Your task to perform on an android device: see tabs open on other devices in the chrome app Image 0: 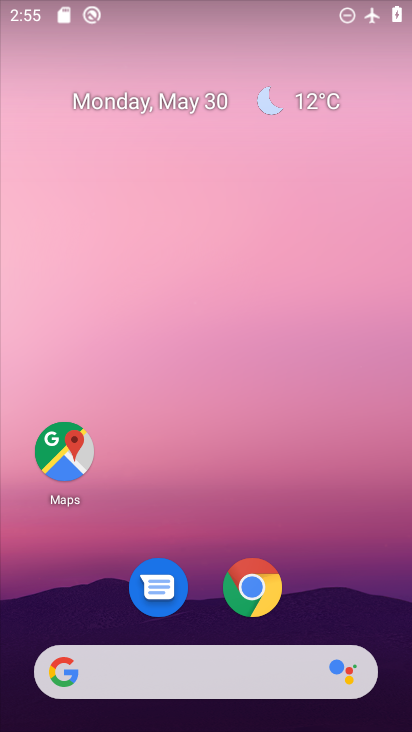
Step 0: click (258, 585)
Your task to perform on an android device: see tabs open on other devices in the chrome app Image 1: 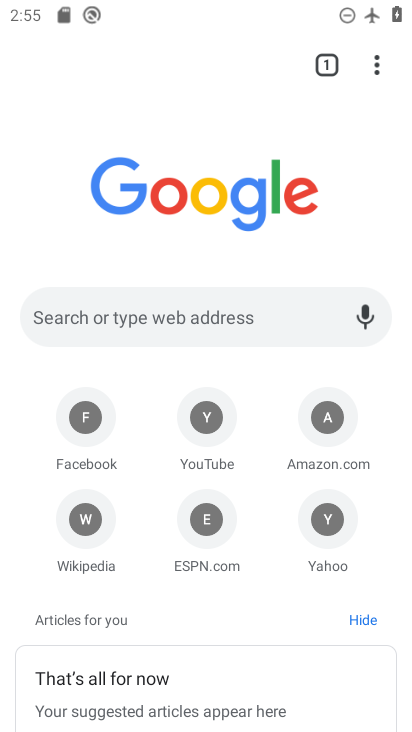
Step 1: click (334, 51)
Your task to perform on an android device: see tabs open on other devices in the chrome app Image 2: 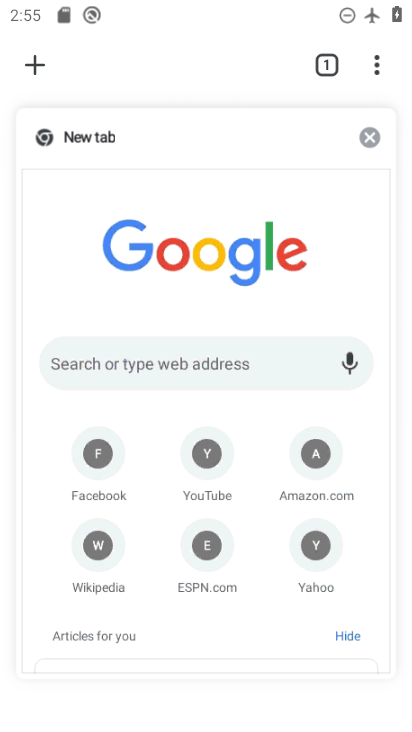
Step 2: task complete